Your task to perform on an android device: What's the weather going to be this weekend? Image 0: 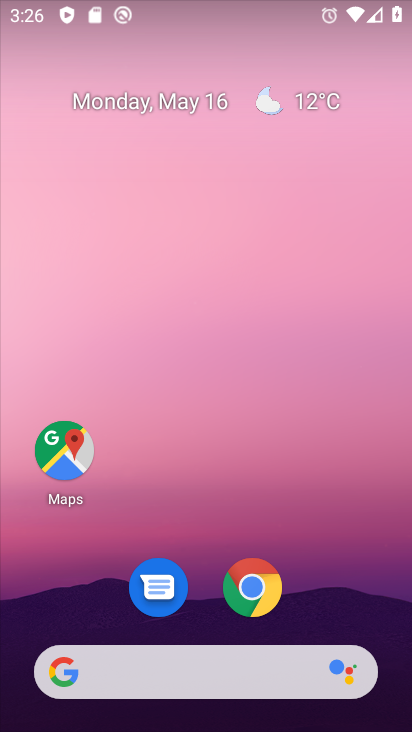
Step 0: click (322, 98)
Your task to perform on an android device: What's the weather going to be this weekend? Image 1: 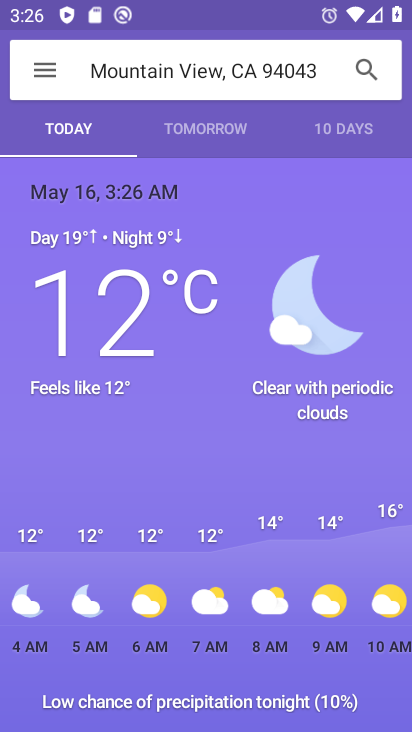
Step 1: click (319, 131)
Your task to perform on an android device: What's the weather going to be this weekend? Image 2: 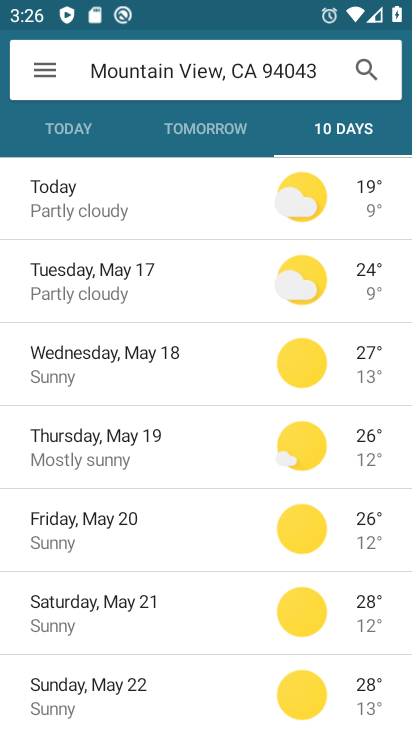
Step 2: task complete